Your task to perform on an android device: turn notification dots on Image 0: 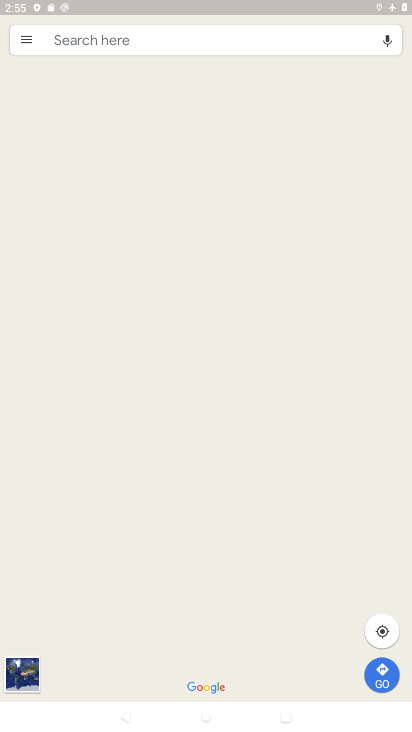
Step 0: press home button
Your task to perform on an android device: turn notification dots on Image 1: 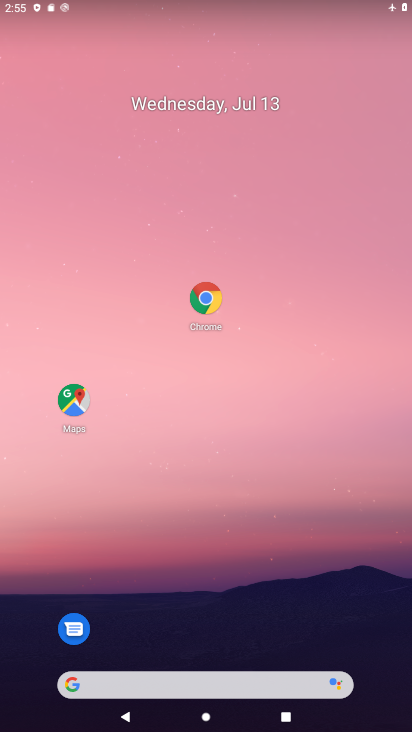
Step 1: drag from (124, 605) to (221, 307)
Your task to perform on an android device: turn notification dots on Image 2: 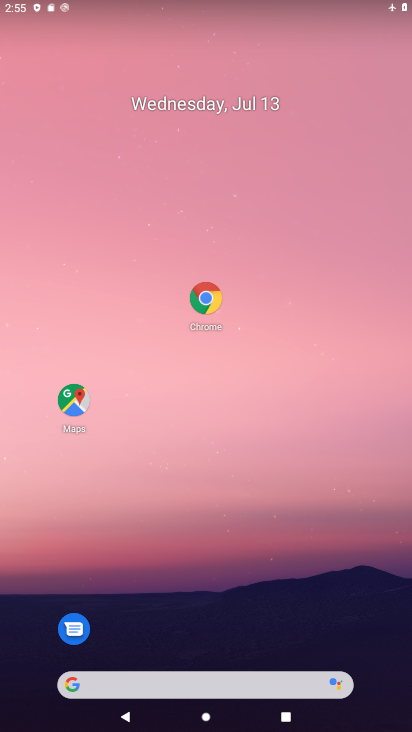
Step 2: drag from (249, 579) to (304, 199)
Your task to perform on an android device: turn notification dots on Image 3: 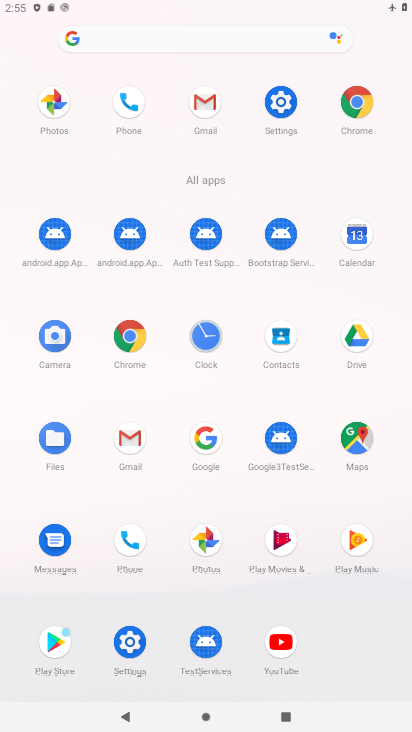
Step 3: click (279, 102)
Your task to perform on an android device: turn notification dots on Image 4: 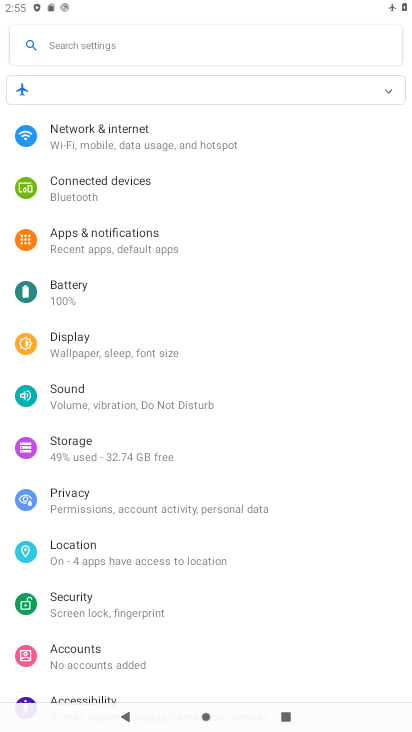
Step 4: click (242, 47)
Your task to perform on an android device: turn notification dots on Image 5: 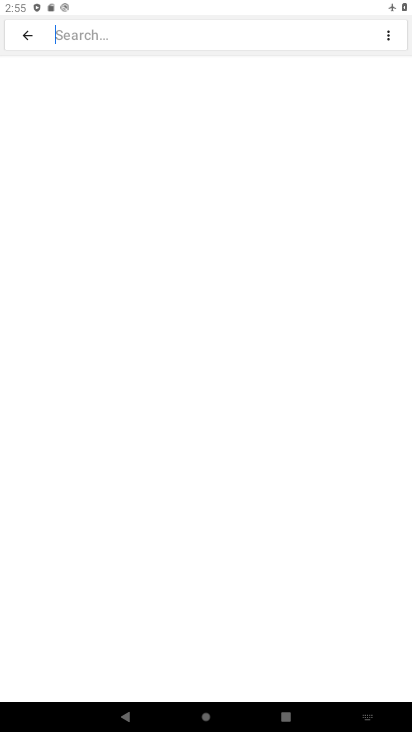
Step 5: type " notification dots "
Your task to perform on an android device: turn notification dots on Image 6: 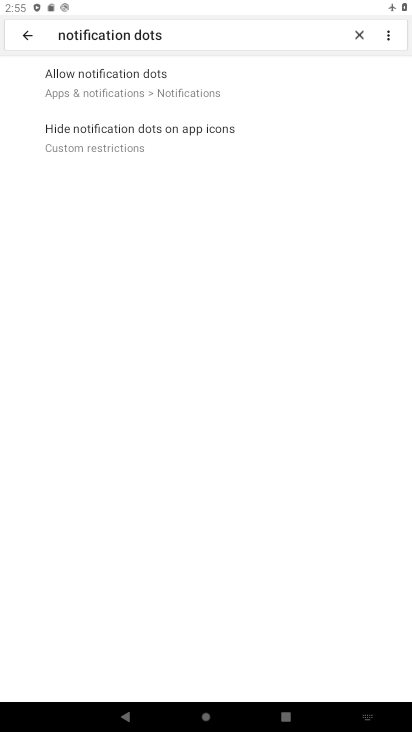
Step 6: click (126, 76)
Your task to perform on an android device: turn notification dots on Image 7: 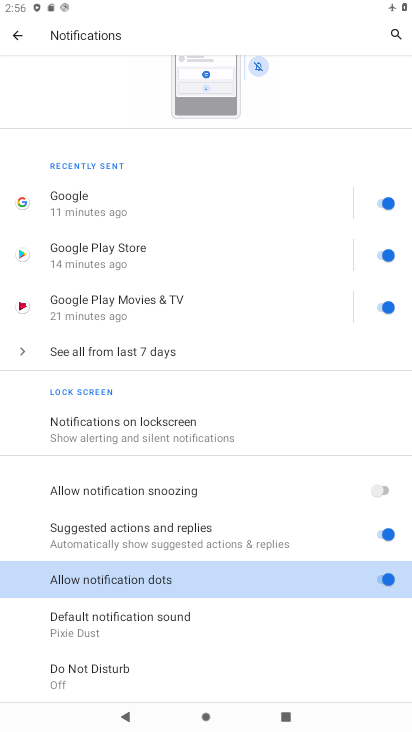
Step 7: task complete